Your task to perform on an android device: Go to Reddit.com Image 0: 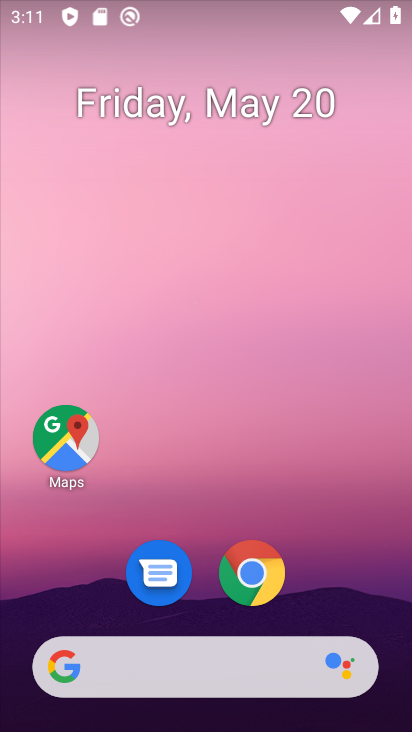
Step 0: click (237, 578)
Your task to perform on an android device: Go to Reddit.com Image 1: 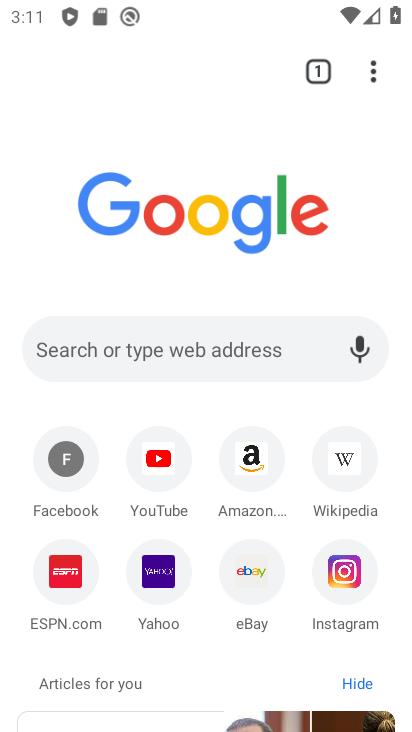
Step 1: click (160, 363)
Your task to perform on an android device: Go to Reddit.com Image 2: 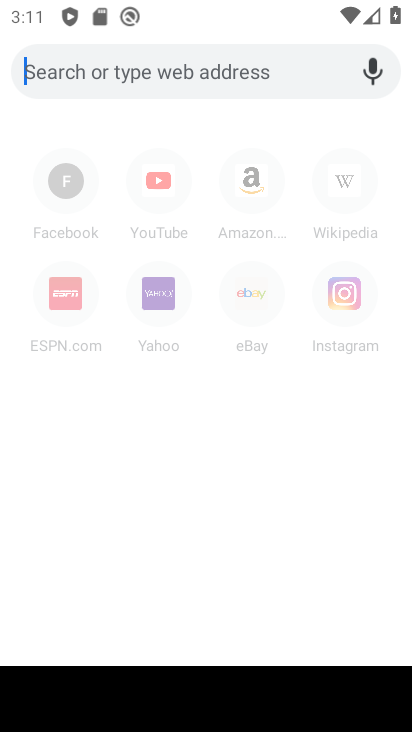
Step 2: type "reddit"
Your task to perform on an android device: Go to Reddit.com Image 3: 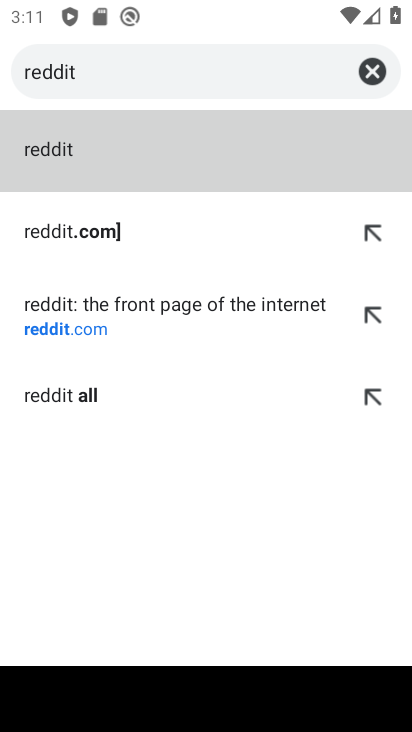
Step 3: click (123, 330)
Your task to perform on an android device: Go to Reddit.com Image 4: 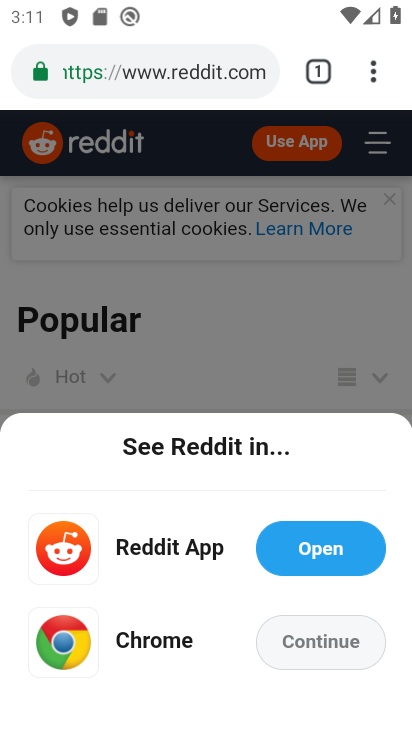
Step 4: click (314, 641)
Your task to perform on an android device: Go to Reddit.com Image 5: 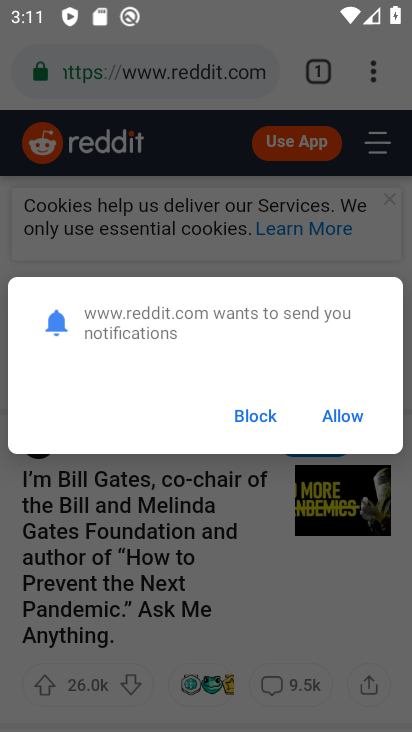
Step 5: click (354, 410)
Your task to perform on an android device: Go to Reddit.com Image 6: 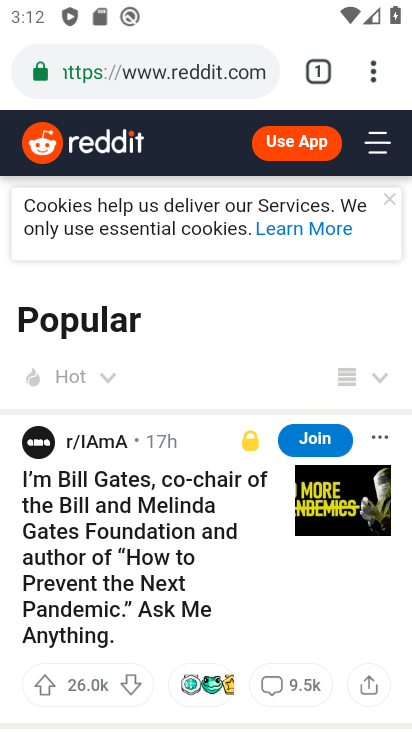
Step 6: task complete